Your task to perform on an android device: change timer sound Image 0: 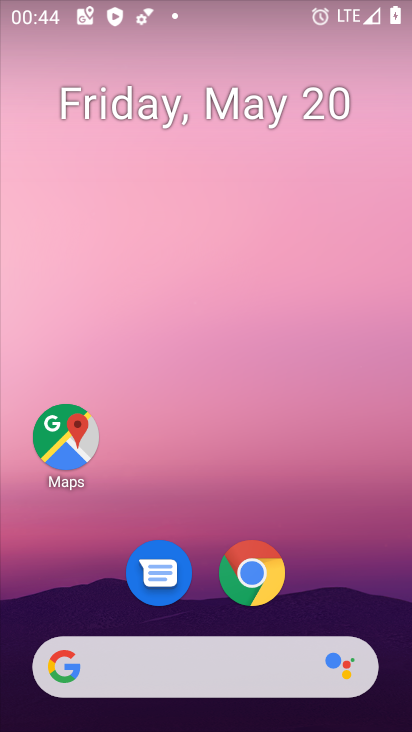
Step 0: drag from (207, 624) to (198, 426)
Your task to perform on an android device: change timer sound Image 1: 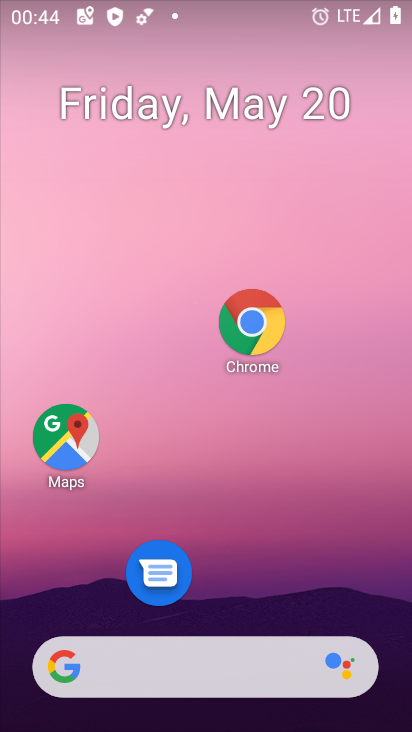
Step 1: drag from (230, 597) to (243, 248)
Your task to perform on an android device: change timer sound Image 2: 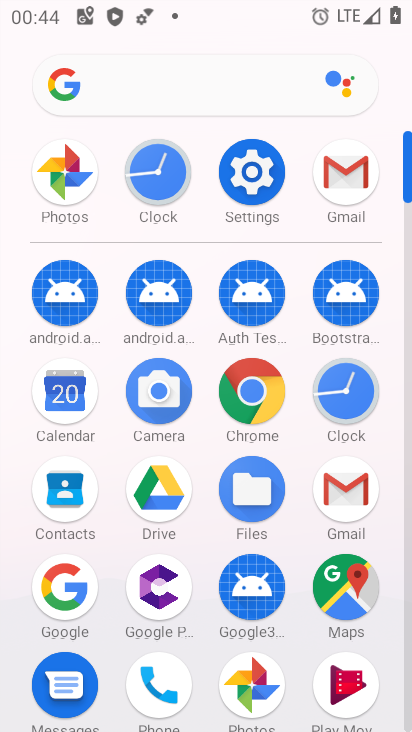
Step 2: click (153, 191)
Your task to perform on an android device: change timer sound Image 3: 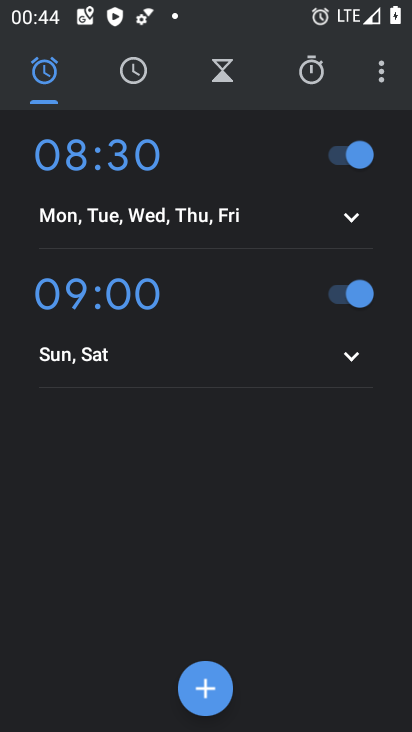
Step 3: click (382, 67)
Your task to perform on an android device: change timer sound Image 4: 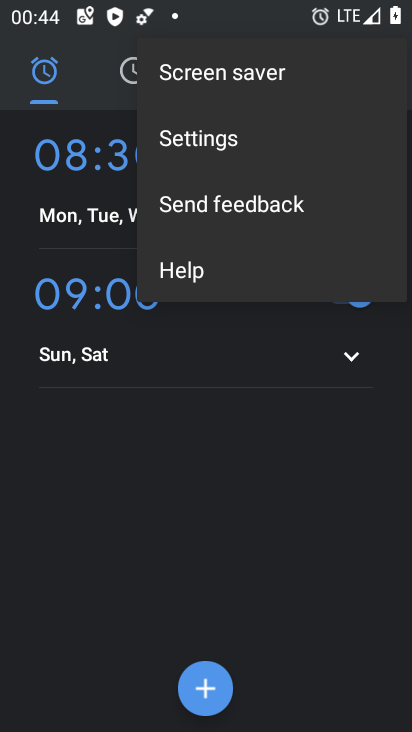
Step 4: click (185, 132)
Your task to perform on an android device: change timer sound Image 5: 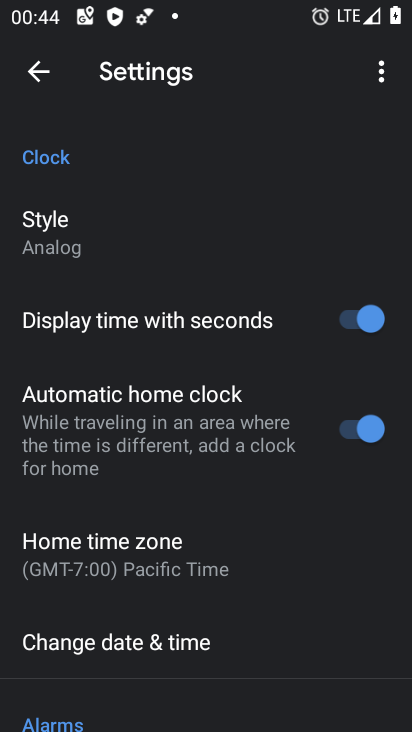
Step 5: drag from (233, 562) to (246, 343)
Your task to perform on an android device: change timer sound Image 6: 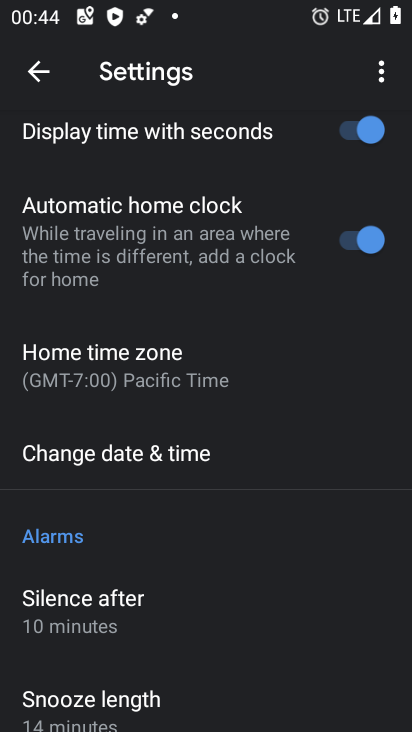
Step 6: drag from (269, 589) to (267, 348)
Your task to perform on an android device: change timer sound Image 7: 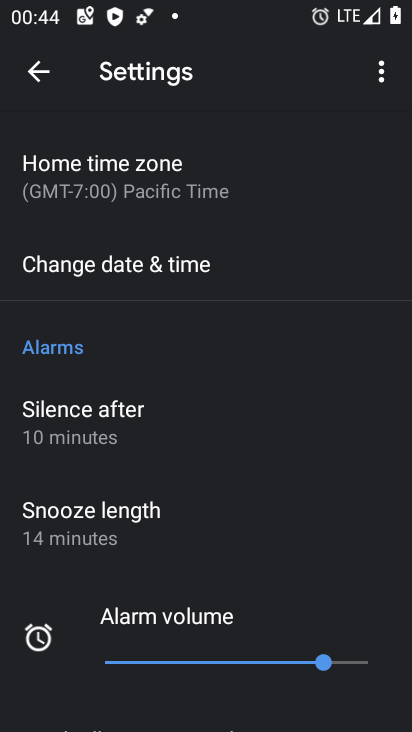
Step 7: drag from (235, 620) to (238, 356)
Your task to perform on an android device: change timer sound Image 8: 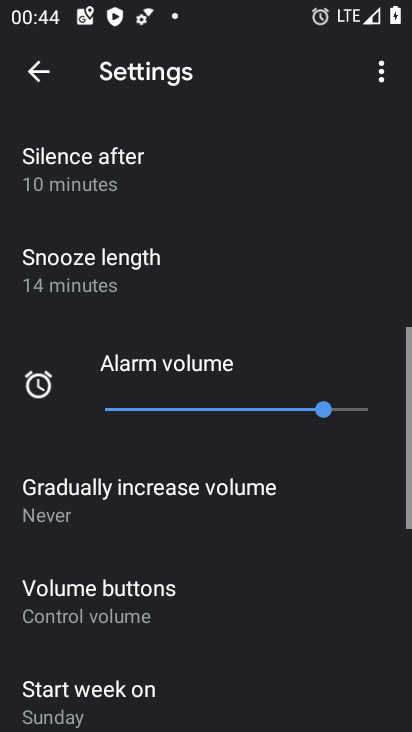
Step 8: drag from (244, 618) to (245, 372)
Your task to perform on an android device: change timer sound Image 9: 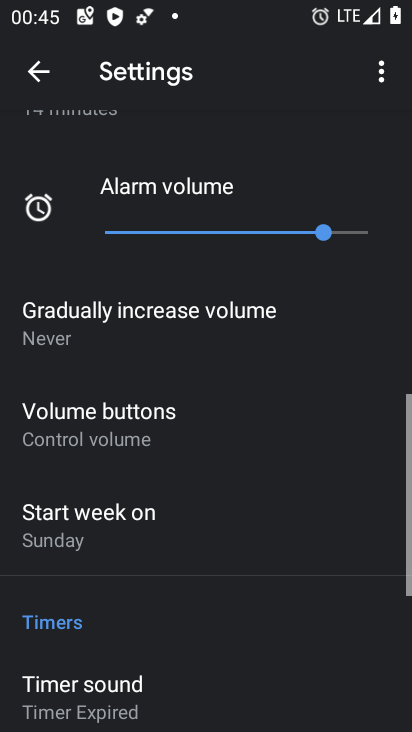
Step 9: drag from (228, 645) to (228, 496)
Your task to perform on an android device: change timer sound Image 10: 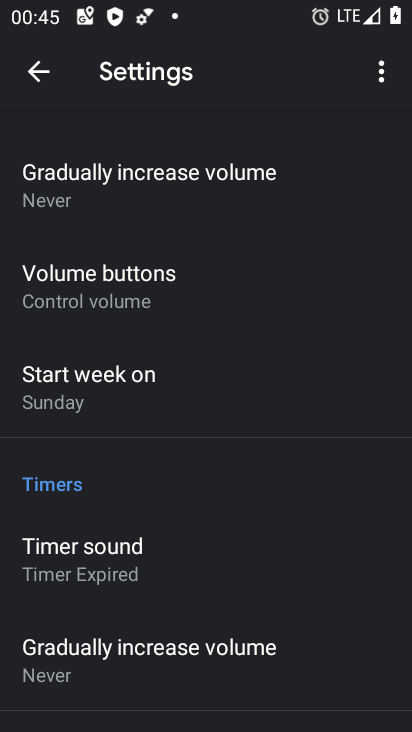
Step 10: click (167, 543)
Your task to perform on an android device: change timer sound Image 11: 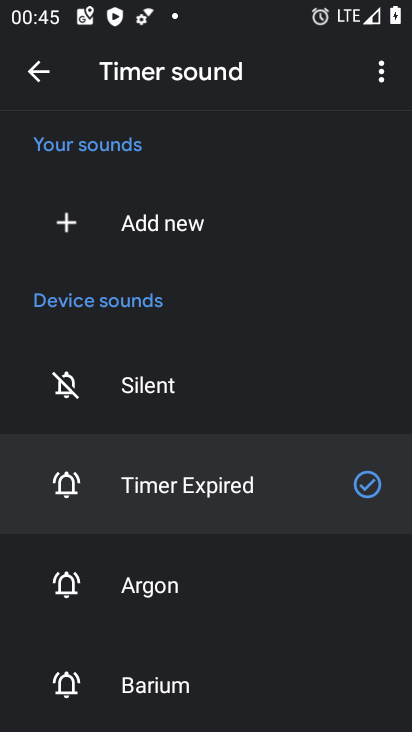
Step 11: click (192, 592)
Your task to perform on an android device: change timer sound Image 12: 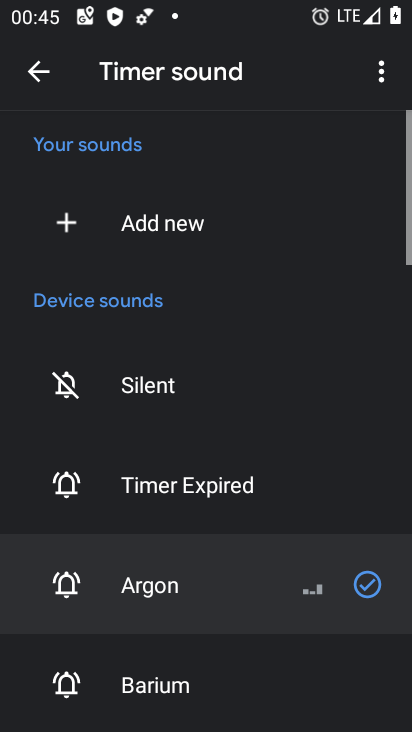
Step 12: task complete